Your task to perform on an android device: Open internet settings Image 0: 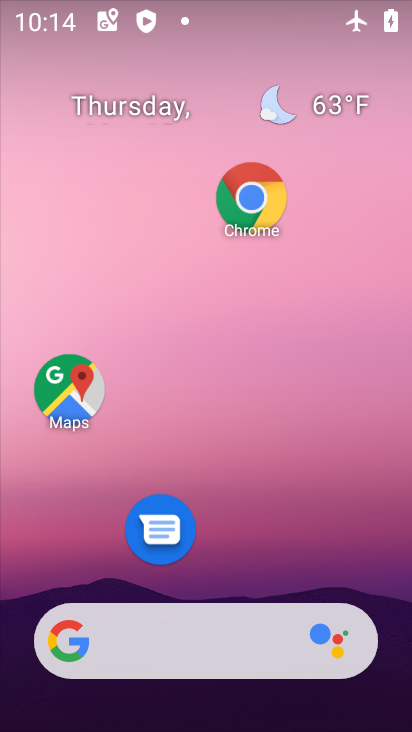
Step 0: drag from (293, 547) to (312, 90)
Your task to perform on an android device: Open internet settings Image 1: 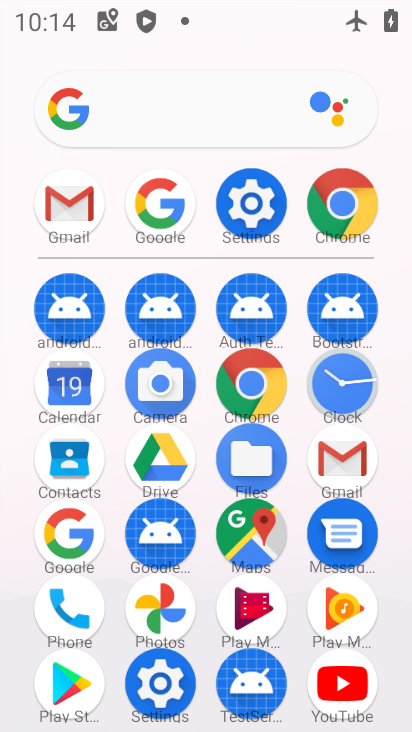
Step 1: click (265, 225)
Your task to perform on an android device: Open internet settings Image 2: 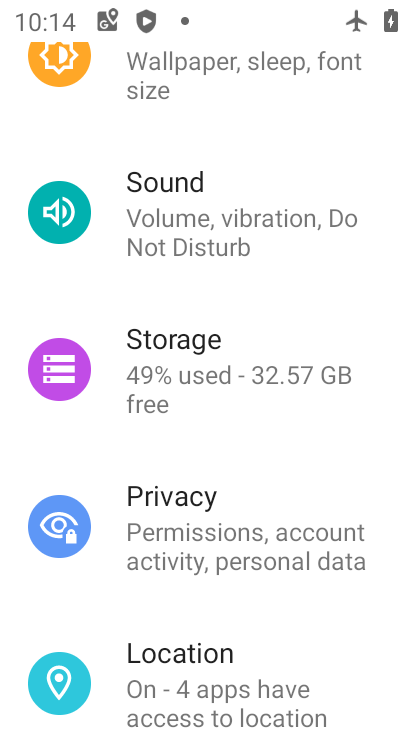
Step 2: drag from (245, 305) to (246, 663)
Your task to perform on an android device: Open internet settings Image 3: 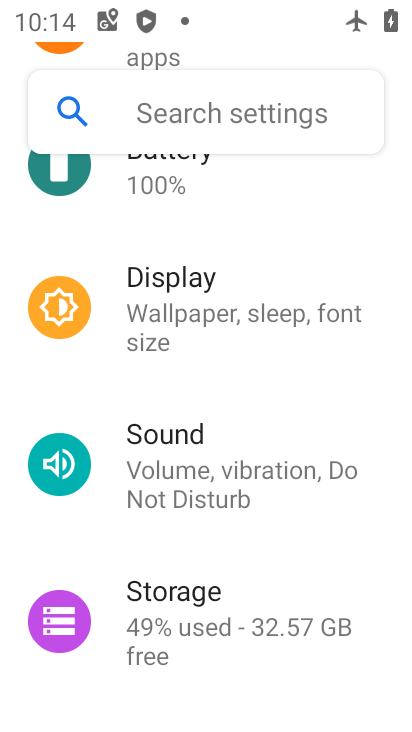
Step 3: drag from (236, 384) to (187, 697)
Your task to perform on an android device: Open internet settings Image 4: 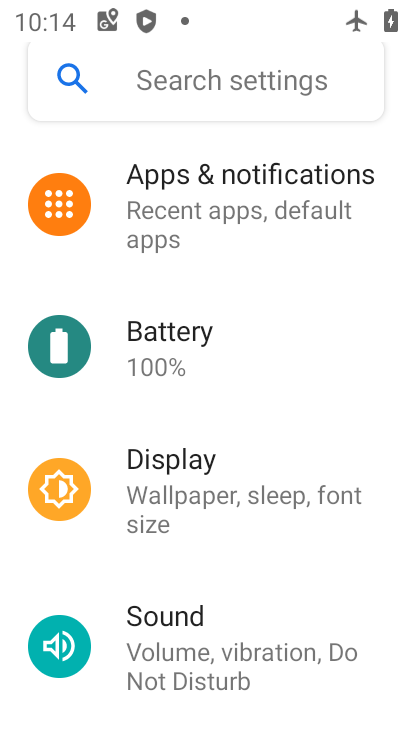
Step 4: drag from (248, 306) to (229, 727)
Your task to perform on an android device: Open internet settings Image 5: 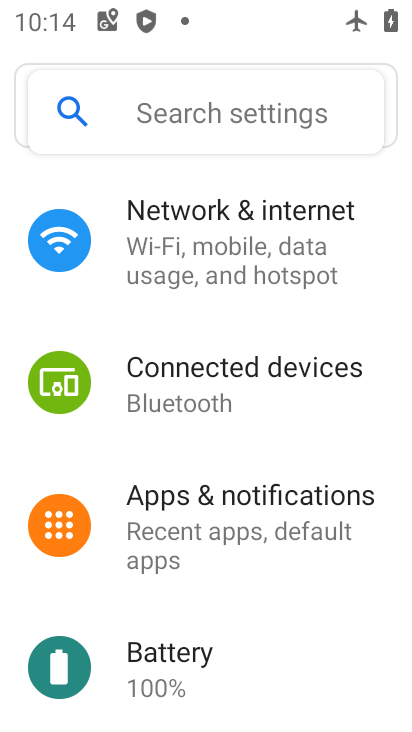
Step 5: click (246, 301)
Your task to perform on an android device: Open internet settings Image 6: 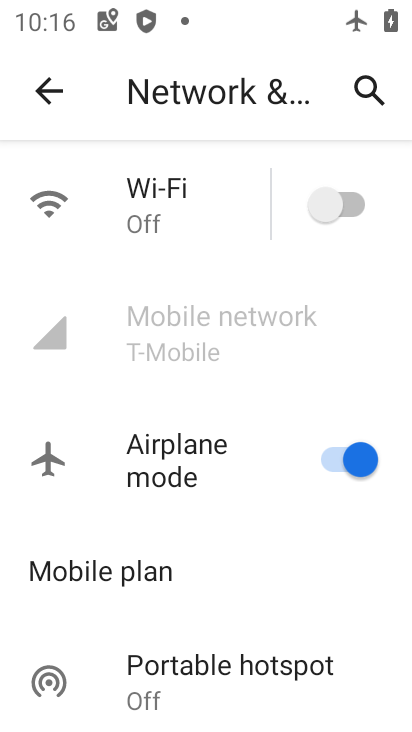
Step 6: task complete